Your task to perform on an android device: toggle data saver in the chrome app Image 0: 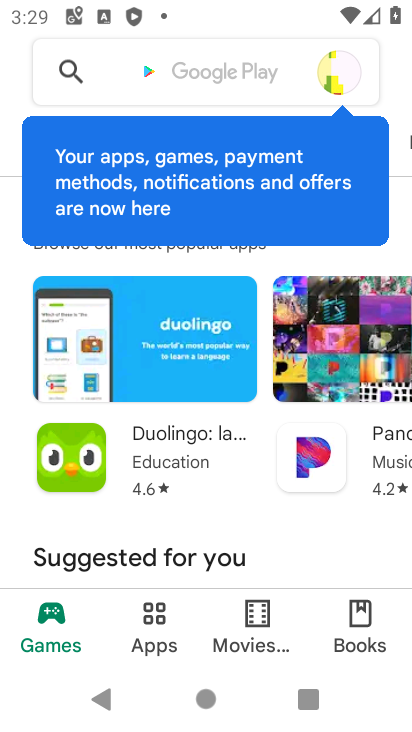
Step 0: press home button
Your task to perform on an android device: toggle data saver in the chrome app Image 1: 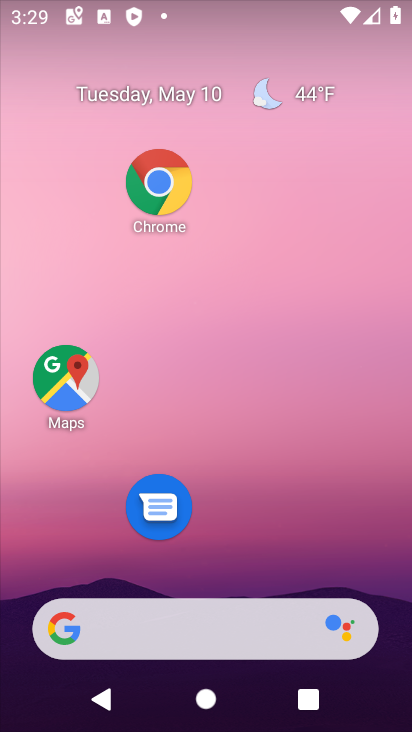
Step 1: drag from (311, 537) to (247, 307)
Your task to perform on an android device: toggle data saver in the chrome app Image 2: 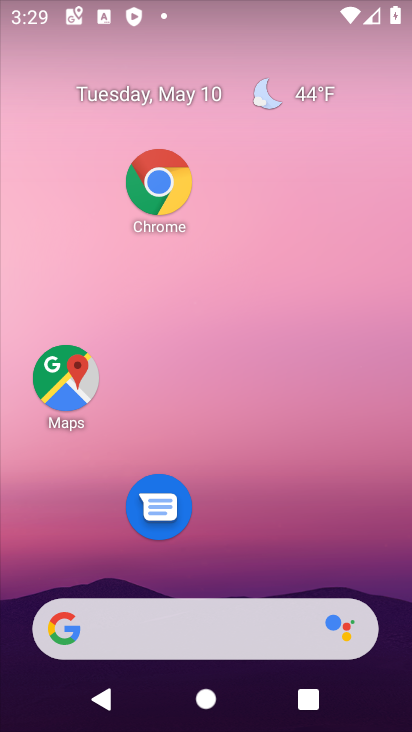
Step 2: click (174, 208)
Your task to perform on an android device: toggle data saver in the chrome app Image 3: 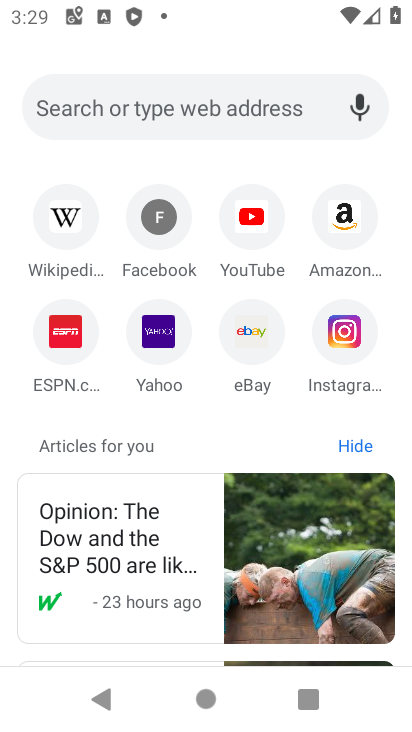
Step 3: drag from (311, 181) to (292, 557)
Your task to perform on an android device: toggle data saver in the chrome app Image 4: 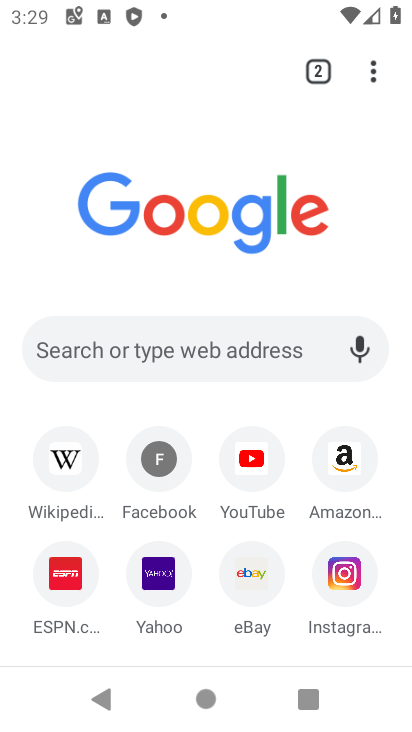
Step 4: click (372, 74)
Your task to perform on an android device: toggle data saver in the chrome app Image 5: 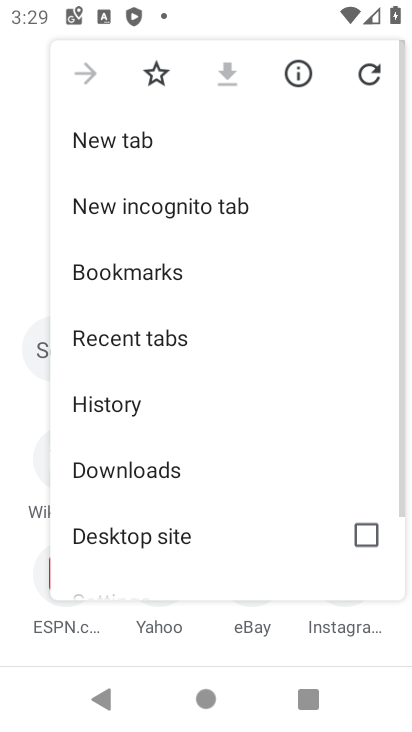
Step 5: drag from (192, 461) to (191, 309)
Your task to perform on an android device: toggle data saver in the chrome app Image 6: 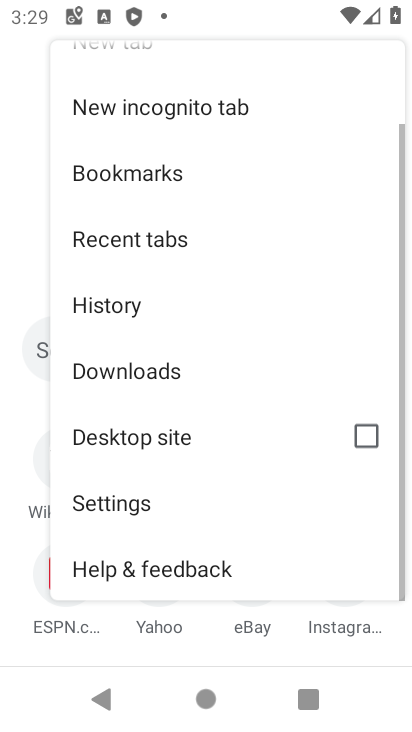
Step 6: click (167, 489)
Your task to perform on an android device: toggle data saver in the chrome app Image 7: 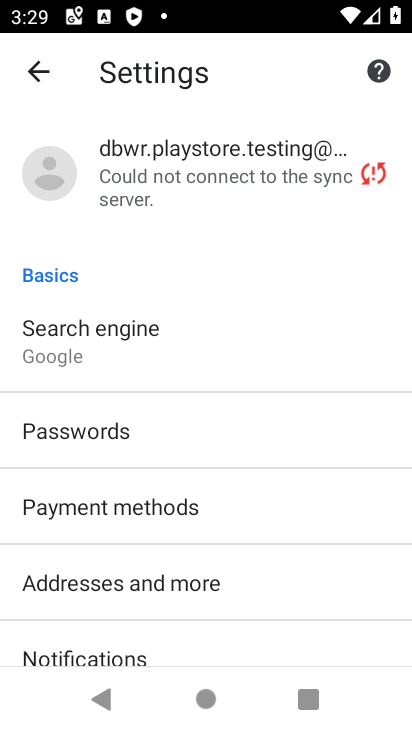
Step 7: drag from (162, 574) to (252, 158)
Your task to perform on an android device: toggle data saver in the chrome app Image 8: 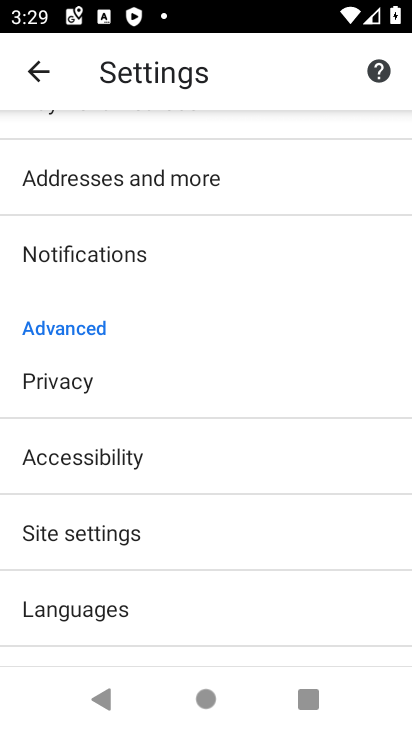
Step 8: drag from (209, 586) to (206, 360)
Your task to perform on an android device: toggle data saver in the chrome app Image 9: 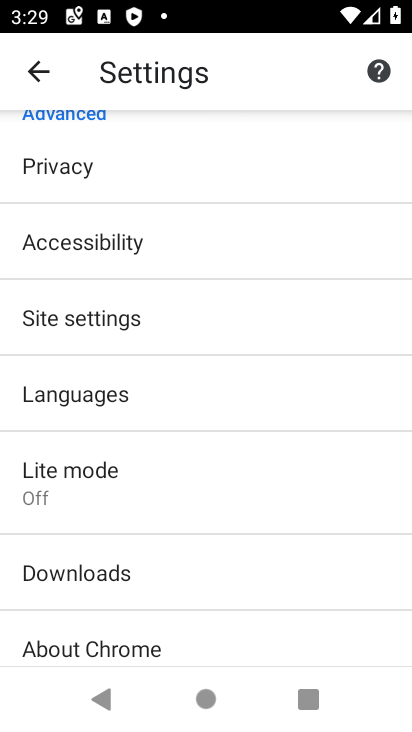
Step 9: click (121, 499)
Your task to perform on an android device: toggle data saver in the chrome app Image 10: 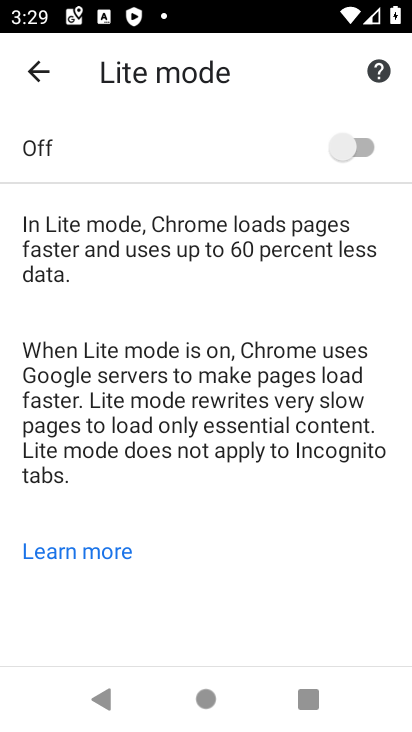
Step 10: click (369, 158)
Your task to perform on an android device: toggle data saver in the chrome app Image 11: 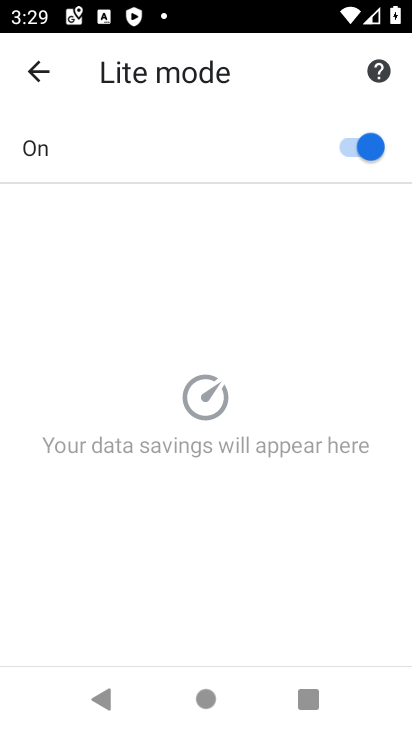
Step 11: task complete